Your task to perform on an android device: read, delete, or share a saved page in the chrome app Image 0: 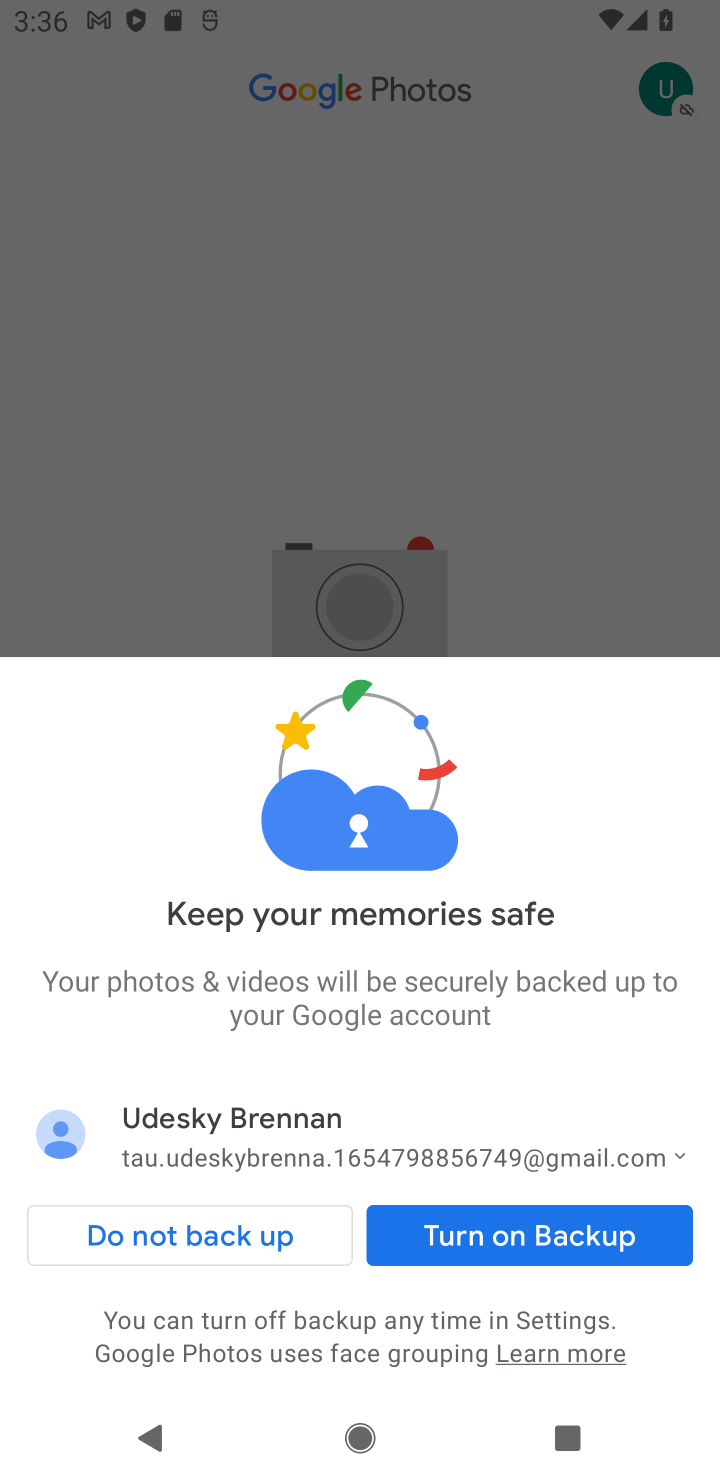
Step 0: task complete